Your task to perform on an android device: Go to location settings Image 0: 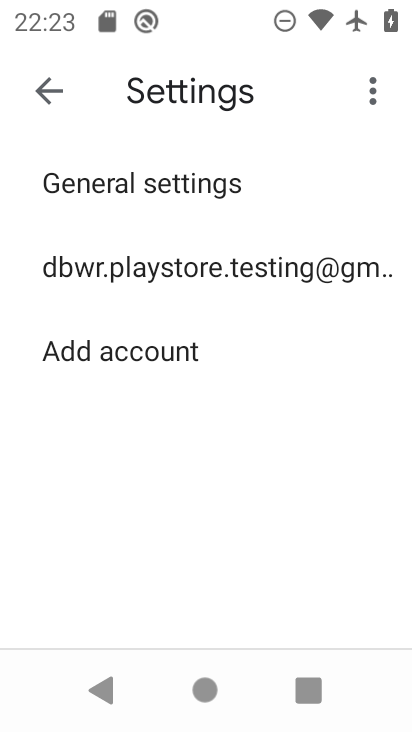
Step 0: press home button
Your task to perform on an android device: Go to location settings Image 1: 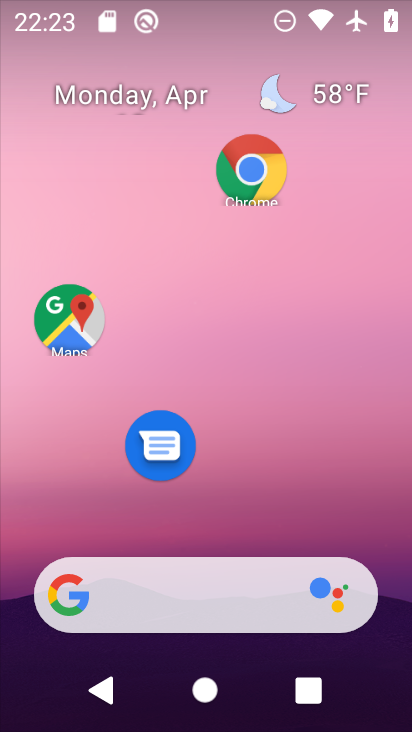
Step 1: drag from (213, 535) to (212, 140)
Your task to perform on an android device: Go to location settings Image 2: 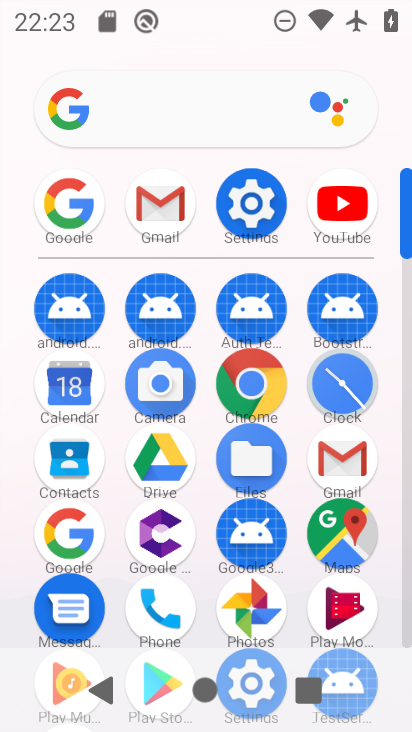
Step 2: click (251, 182)
Your task to perform on an android device: Go to location settings Image 3: 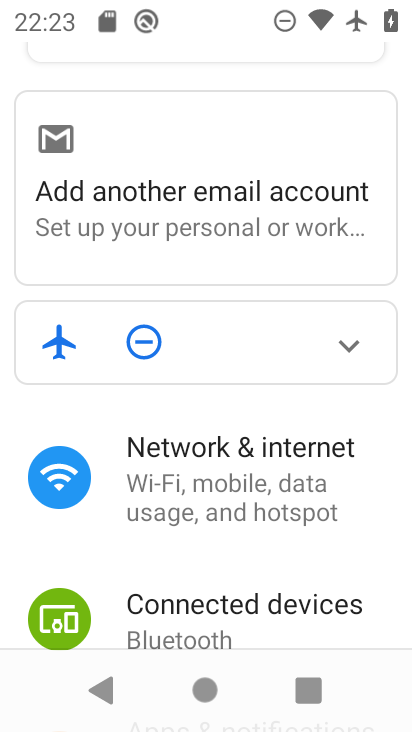
Step 3: drag from (217, 538) to (232, 156)
Your task to perform on an android device: Go to location settings Image 4: 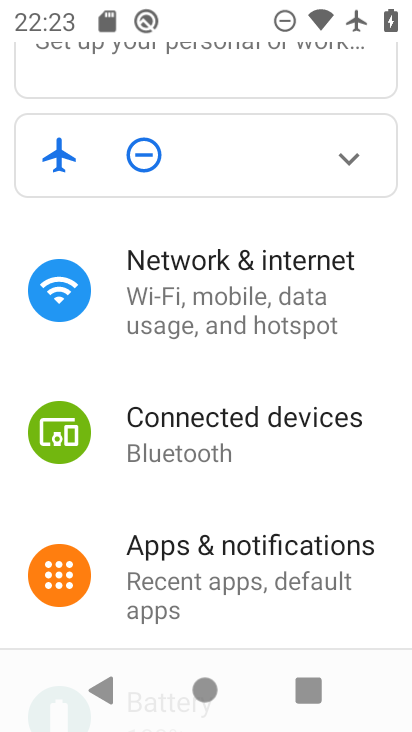
Step 4: drag from (278, 253) to (289, 175)
Your task to perform on an android device: Go to location settings Image 5: 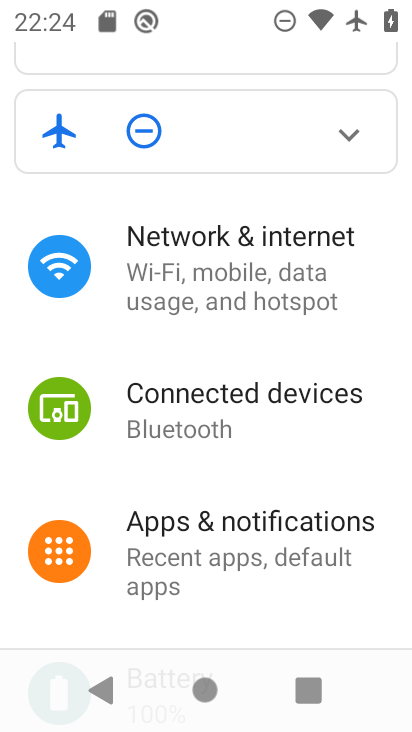
Step 5: drag from (227, 509) to (254, 208)
Your task to perform on an android device: Go to location settings Image 6: 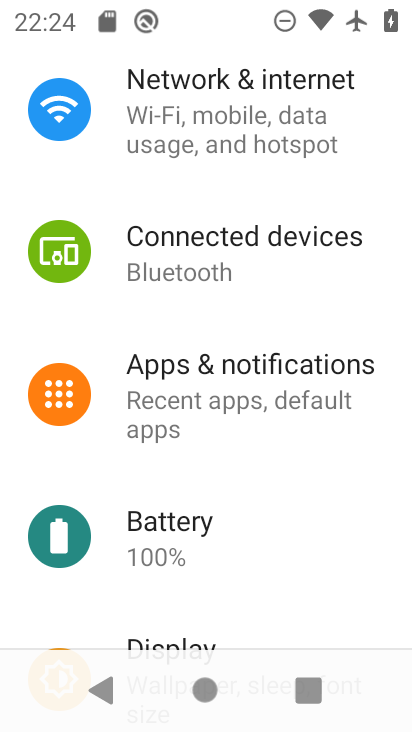
Step 6: drag from (239, 513) to (243, 278)
Your task to perform on an android device: Go to location settings Image 7: 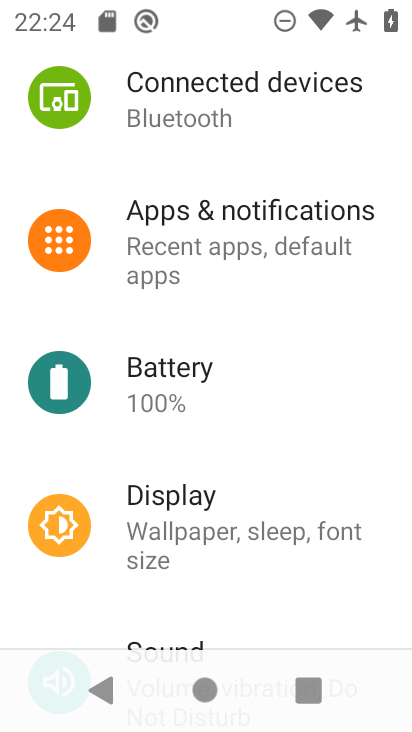
Step 7: drag from (264, 496) to (268, 228)
Your task to perform on an android device: Go to location settings Image 8: 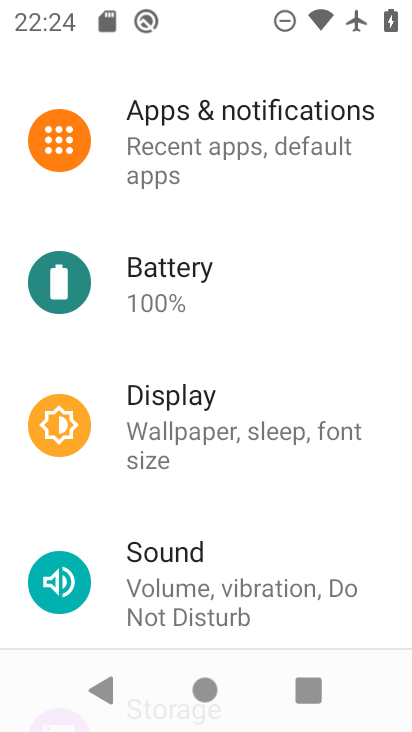
Step 8: drag from (244, 552) to (235, 240)
Your task to perform on an android device: Go to location settings Image 9: 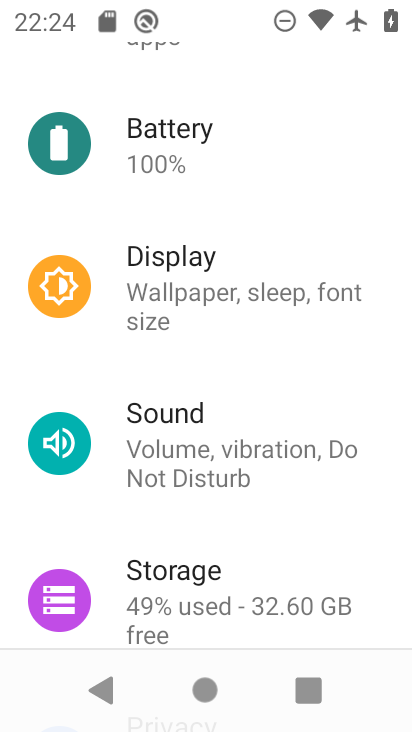
Step 9: drag from (263, 540) to (250, 223)
Your task to perform on an android device: Go to location settings Image 10: 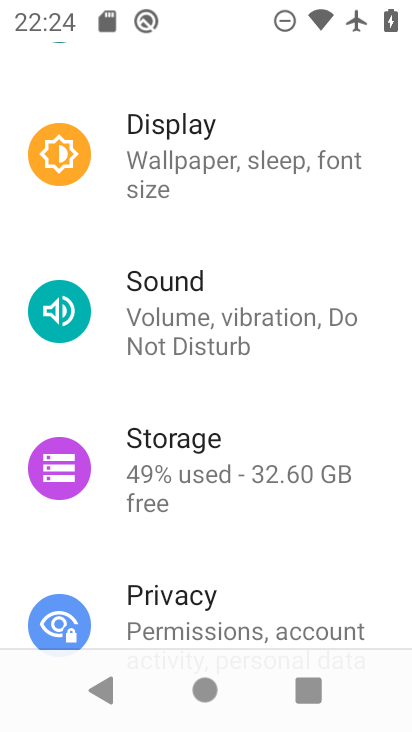
Step 10: drag from (265, 513) to (270, 237)
Your task to perform on an android device: Go to location settings Image 11: 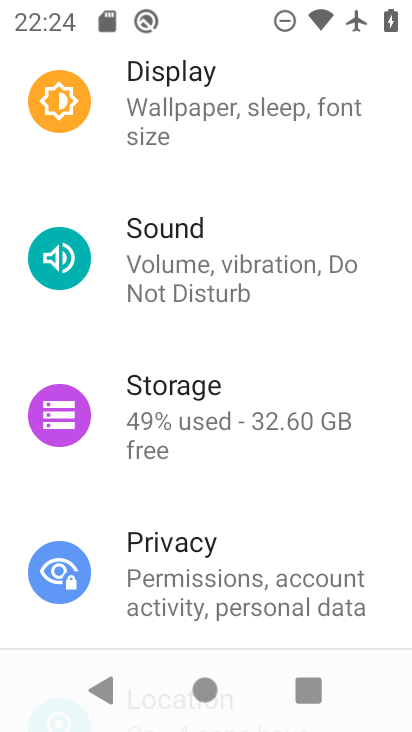
Step 11: drag from (277, 543) to (280, 213)
Your task to perform on an android device: Go to location settings Image 12: 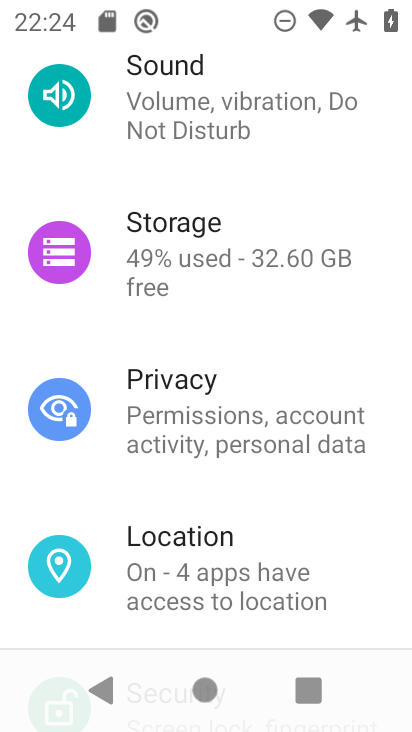
Step 12: click (275, 563)
Your task to perform on an android device: Go to location settings Image 13: 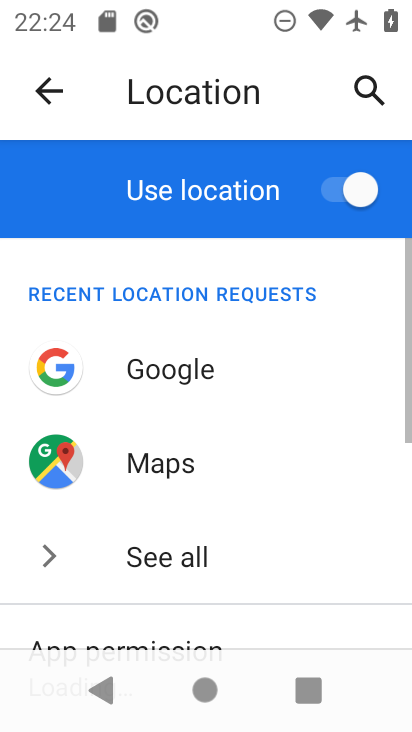
Step 13: drag from (261, 526) to (239, 195)
Your task to perform on an android device: Go to location settings Image 14: 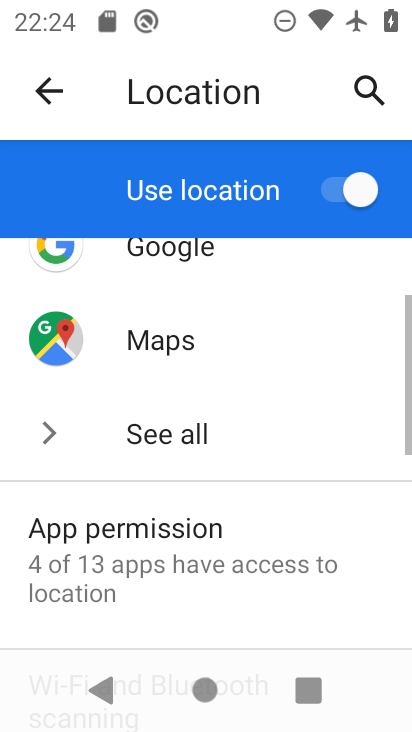
Step 14: drag from (255, 574) to (249, 193)
Your task to perform on an android device: Go to location settings Image 15: 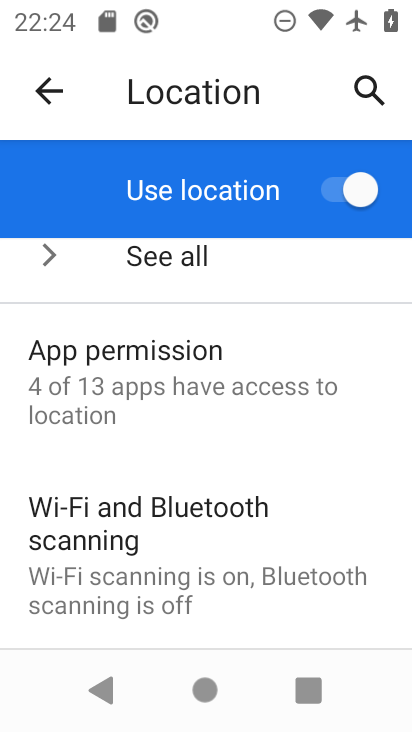
Step 15: drag from (188, 627) to (210, 304)
Your task to perform on an android device: Go to location settings Image 16: 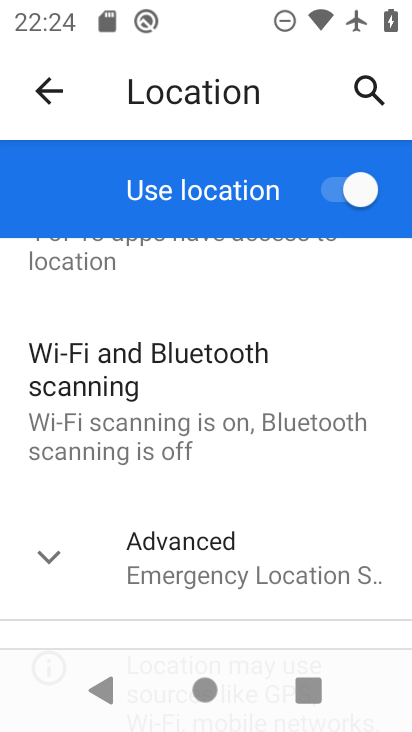
Step 16: drag from (252, 555) to (261, 277)
Your task to perform on an android device: Go to location settings Image 17: 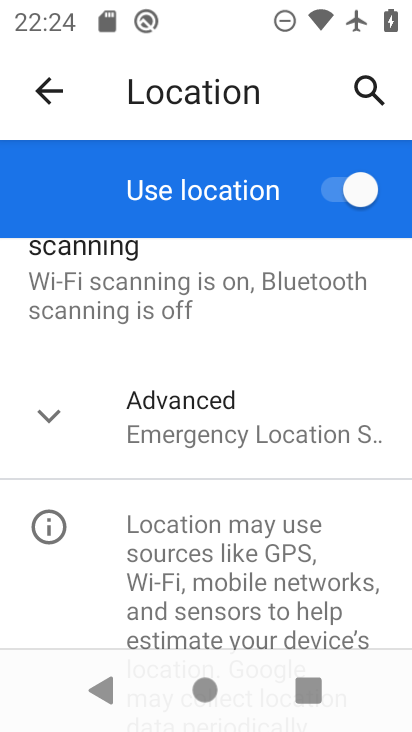
Step 17: drag from (279, 469) to (293, 171)
Your task to perform on an android device: Go to location settings Image 18: 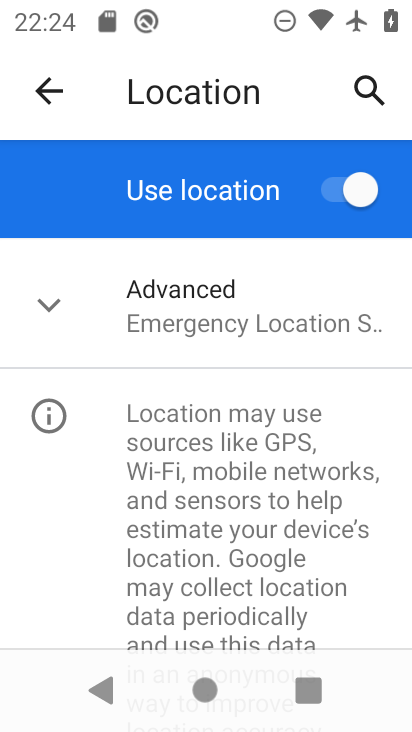
Step 18: drag from (311, 516) to (301, 205)
Your task to perform on an android device: Go to location settings Image 19: 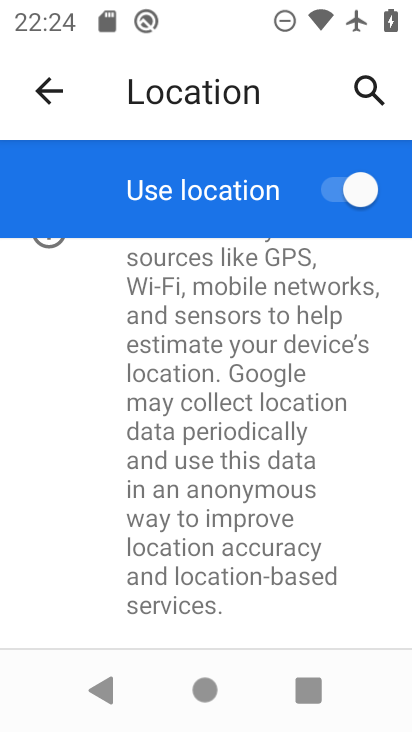
Step 19: click (302, 252)
Your task to perform on an android device: Go to location settings Image 20: 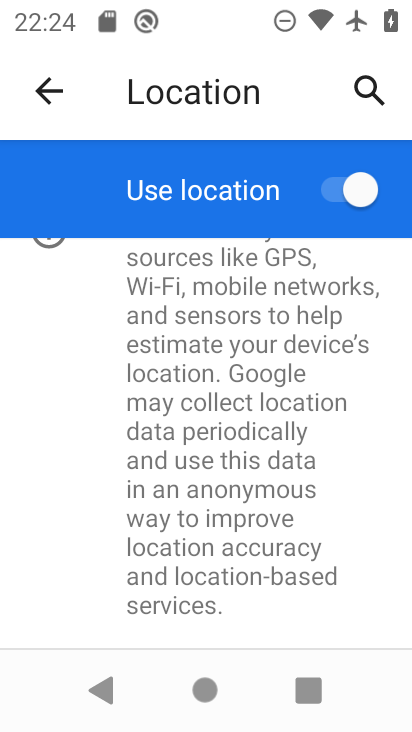
Step 20: task complete